Your task to perform on an android device: open chrome and create a bookmark for the current page Image 0: 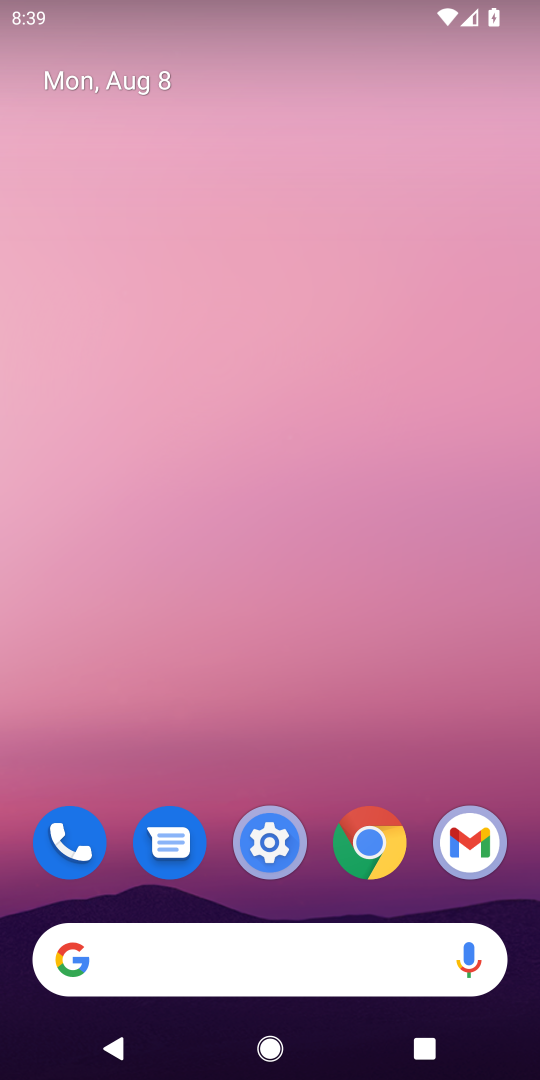
Step 0: click (374, 820)
Your task to perform on an android device: open chrome and create a bookmark for the current page Image 1: 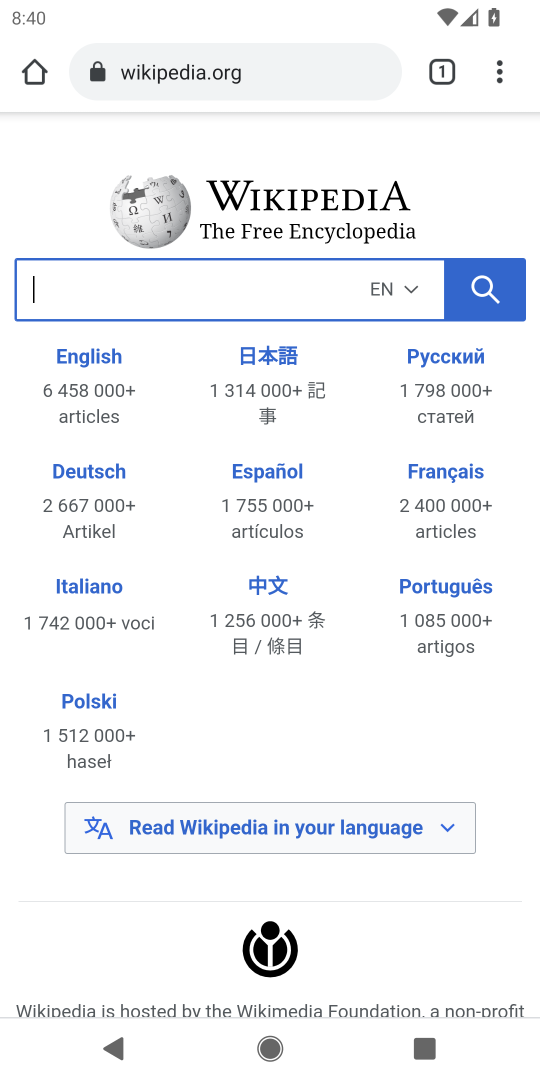
Step 1: click (501, 75)
Your task to perform on an android device: open chrome and create a bookmark for the current page Image 2: 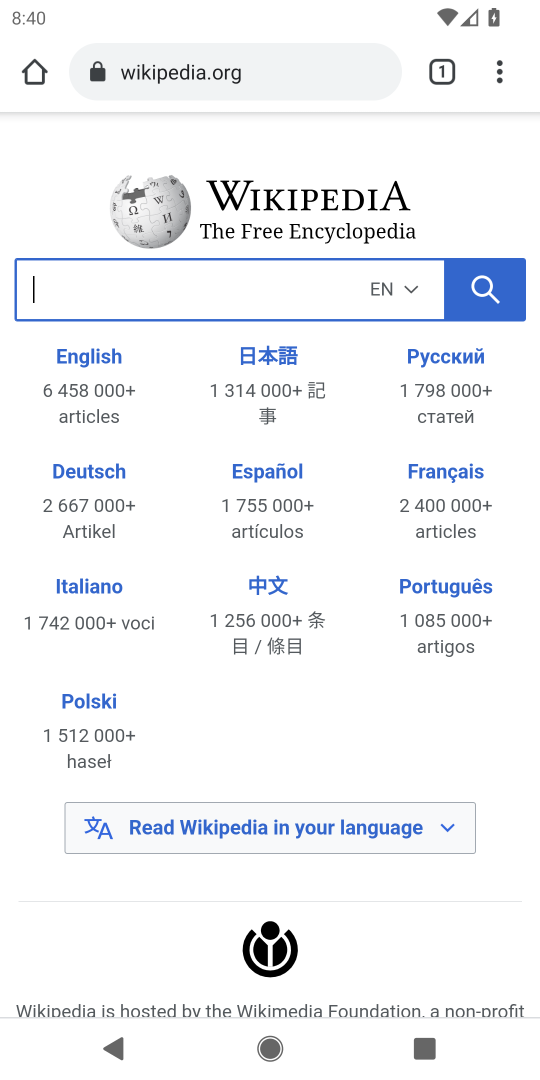
Step 2: click (521, 84)
Your task to perform on an android device: open chrome and create a bookmark for the current page Image 3: 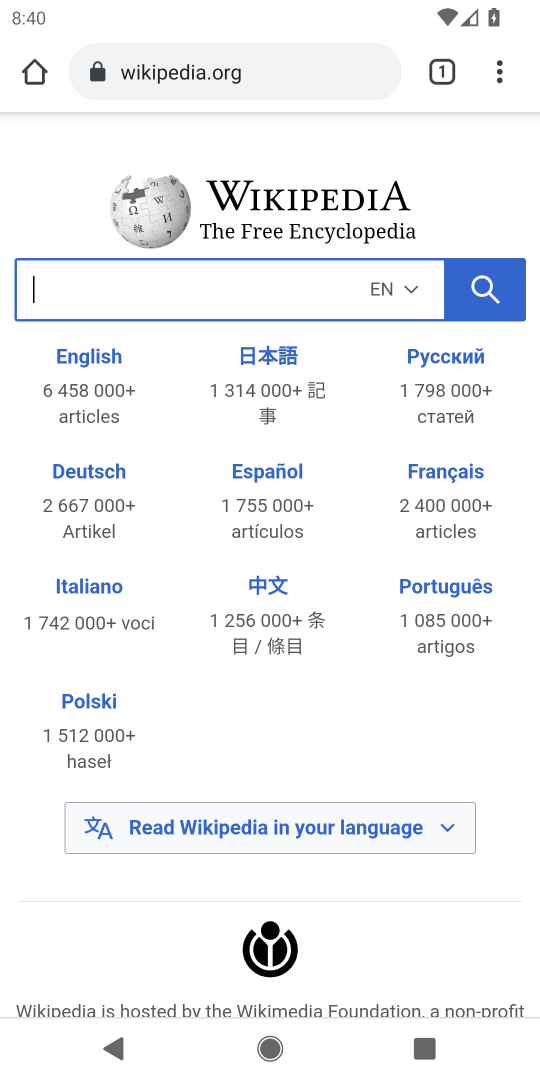
Step 3: click (523, 95)
Your task to perform on an android device: open chrome and create a bookmark for the current page Image 4: 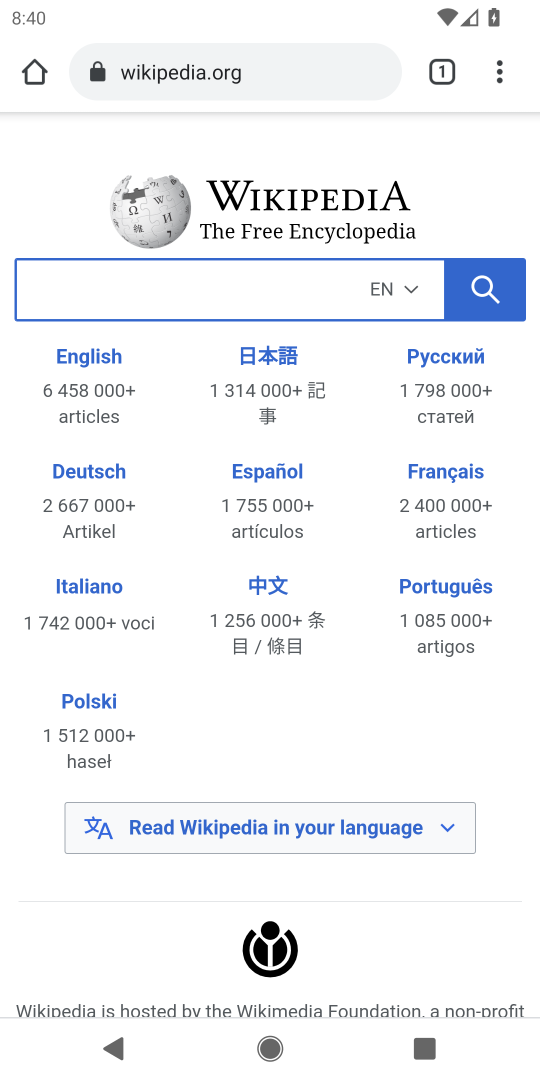
Step 4: click (523, 95)
Your task to perform on an android device: open chrome and create a bookmark for the current page Image 5: 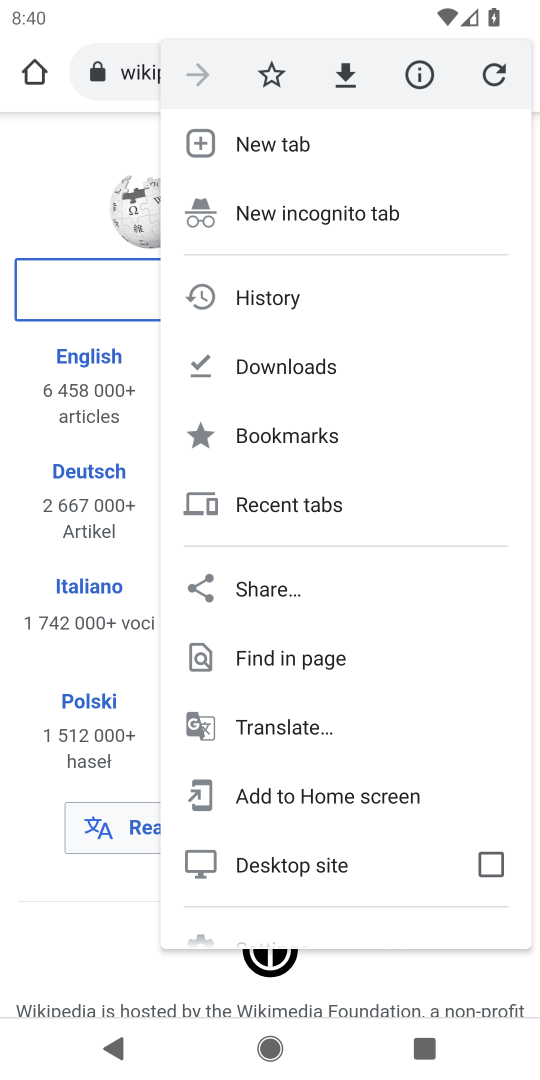
Step 5: click (258, 82)
Your task to perform on an android device: open chrome and create a bookmark for the current page Image 6: 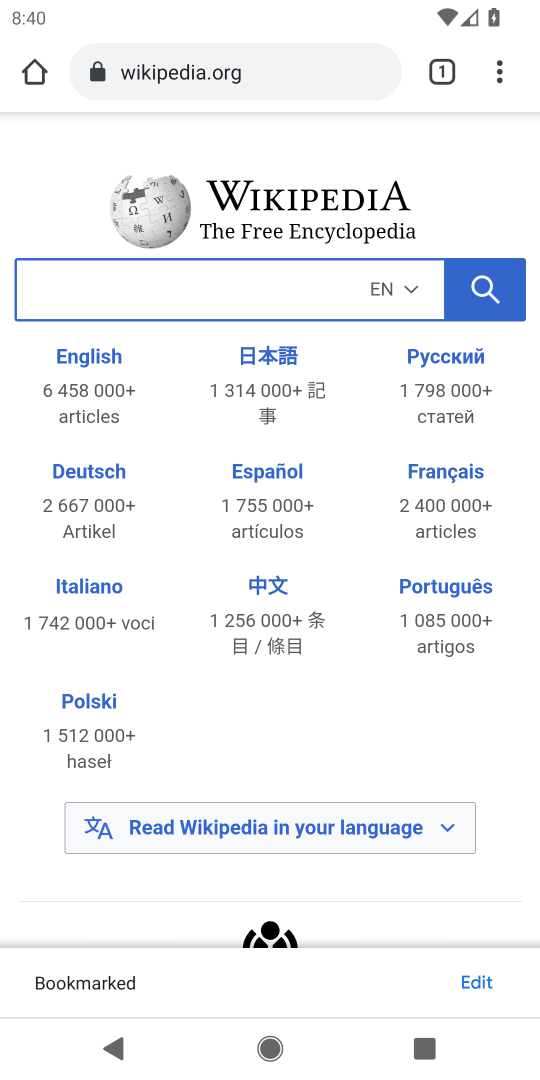
Step 6: task complete